Your task to perform on an android device: Open network settings Image 0: 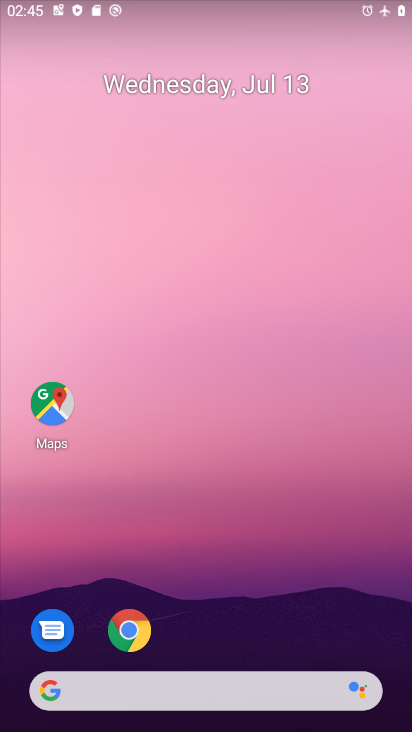
Step 0: drag from (220, 647) to (222, 245)
Your task to perform on an android device: Open network settings Image 1: 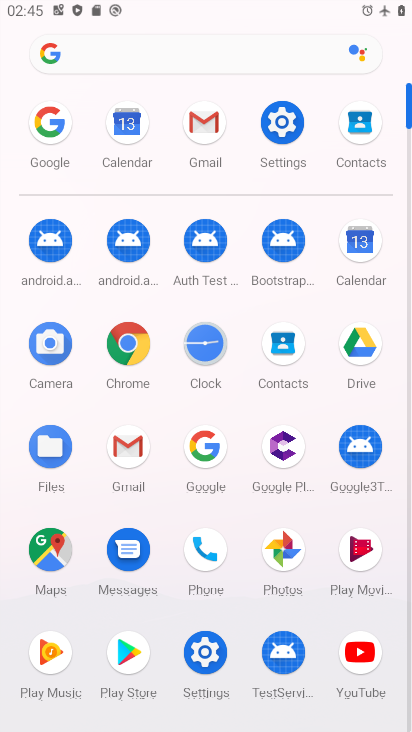
Step 1: click (276, 136)
Your task to perform on an android device: Open network settings Image 2: 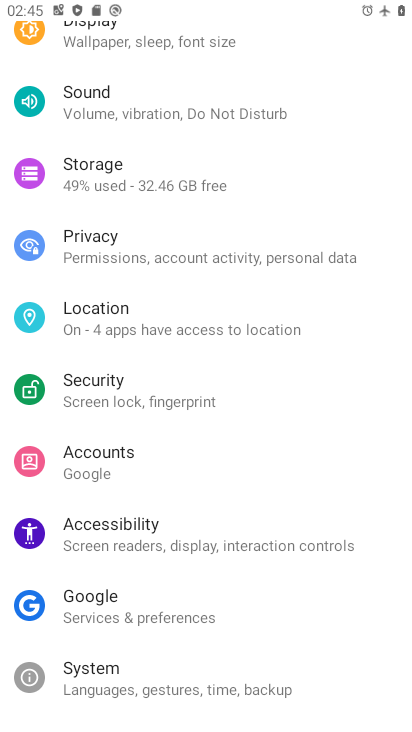
Step 2: drag from (200, 124) to (192, 404)
Your task to perform on an android device: Open network settings Image 3: 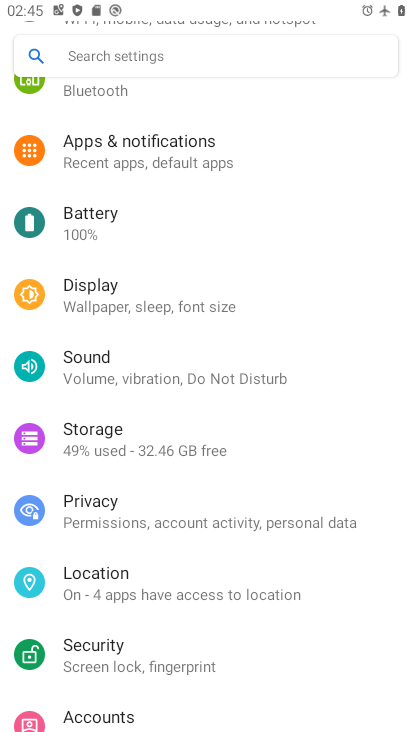
Step 3: drag from (146, 207) to (167, 477)
Your task to perform on an android device: Open network settings Image 4: 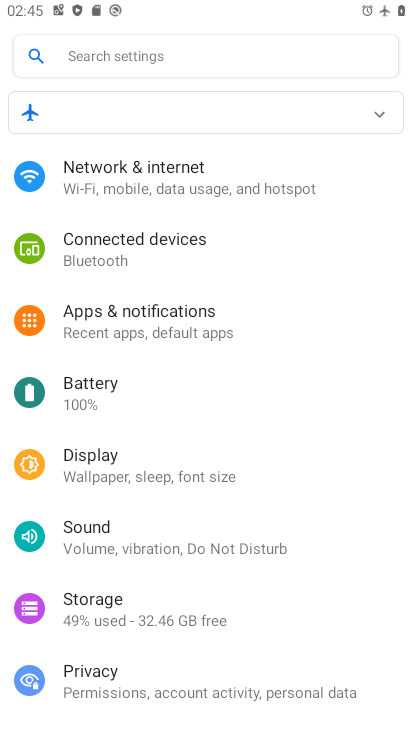
Step 4: click (164, 198)
Your task to perform on an android device: Open network settings Image 5: 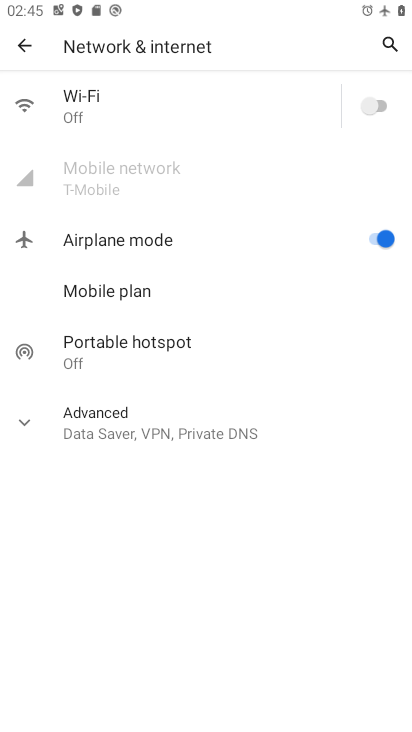
Step 5: task complete